Your task to perform on an android device: check google app version Image 0: 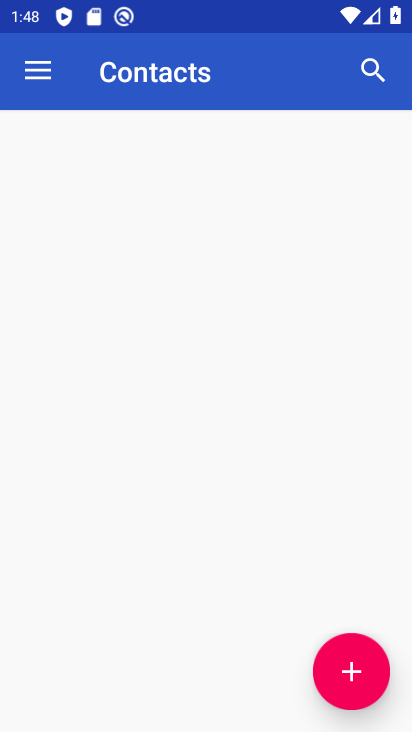
Step 0: click (249, 579)
Your task to perform on an android device: check google app version Image 1: 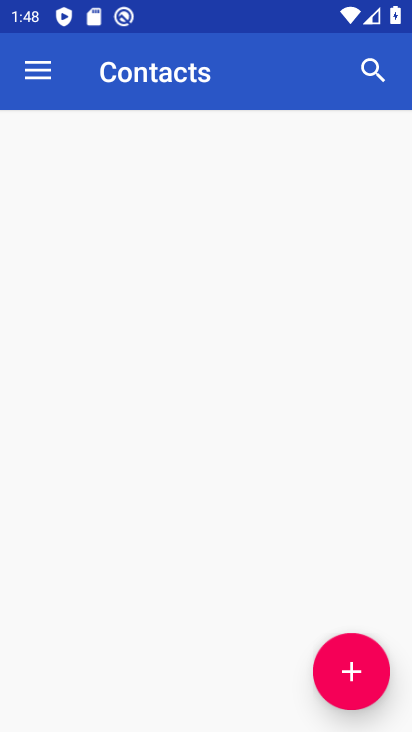
Step 1: press home button
Your task to perform on an android device: check google app version Image 2: 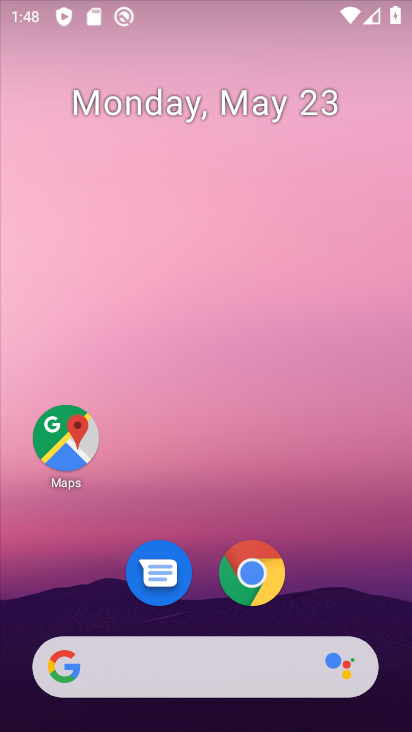
Step 2: drag from (339, 568) to (319, 155)
Your task to perform on an android device: check google app version Image 3: 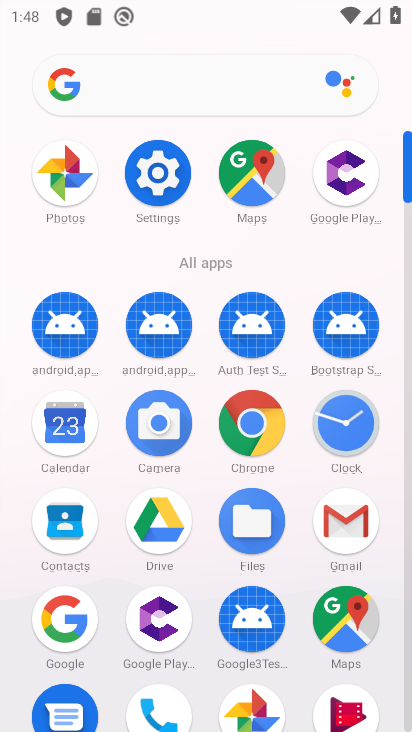
Step 3: click (59, 622)
Your task to perform on an android device: check google app version Image 4: 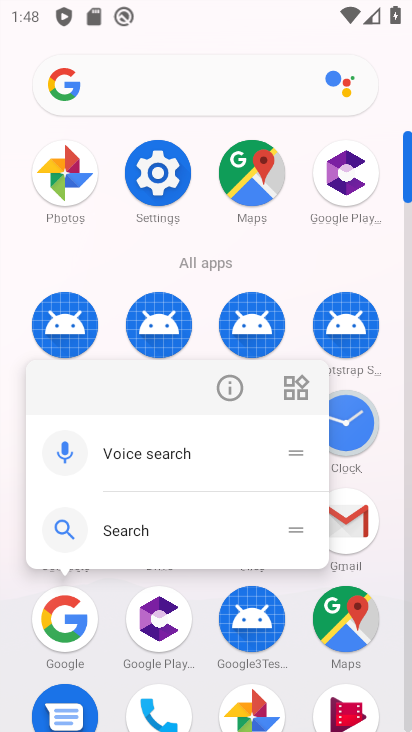
Step 4: click (223, 381)
Your task to perform on an android device: check google app version Image 5: 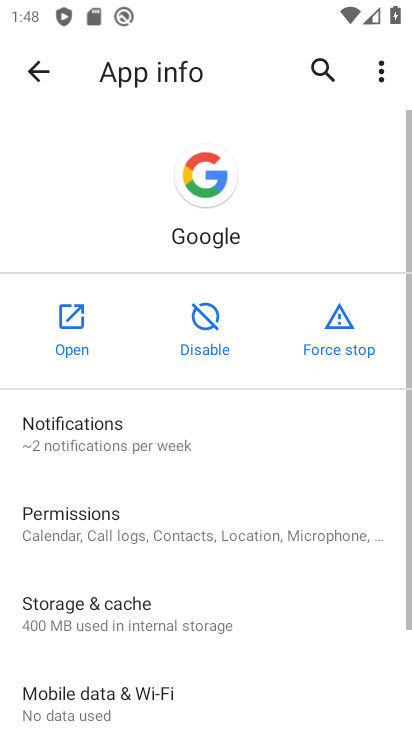
Step 5: drag from (244, 637) to (300, 120)
Your task to perform on an android device: check google app version Image 6: 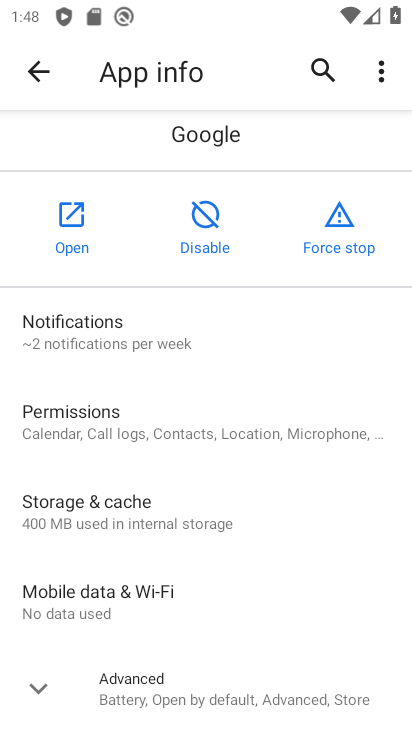
Step 6: click (166, 691)
Your task to perform on an android device: check google app version Image 7: 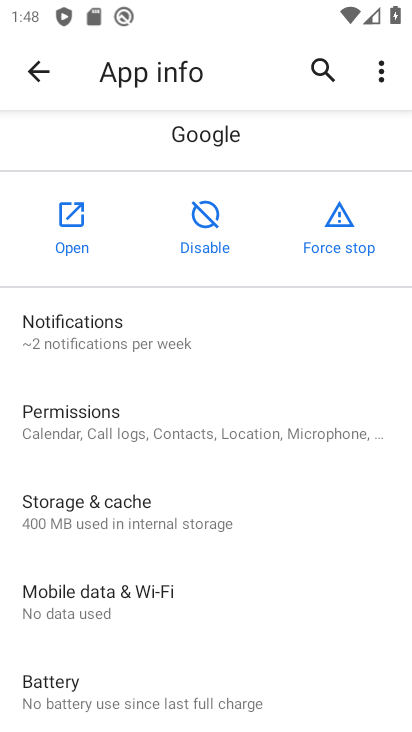
Step 7: task complete